Your task to perform on an android device: change notifications settings Image 0: 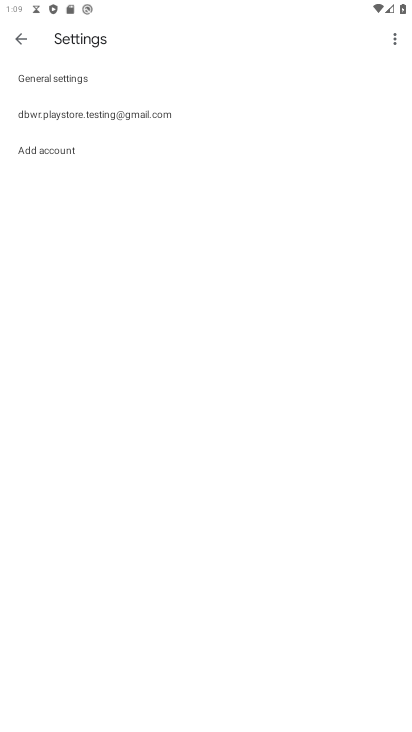
Step 0: press home button
Your task to perform on an android device: change notifications settings Image 1: 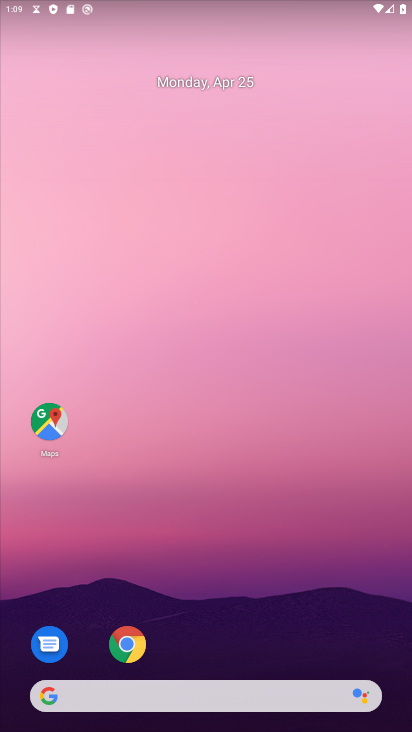
Step 1: drag from (355, 664) to (360, 0)
Your task to perform on an android device: change notifications settings Image 2: 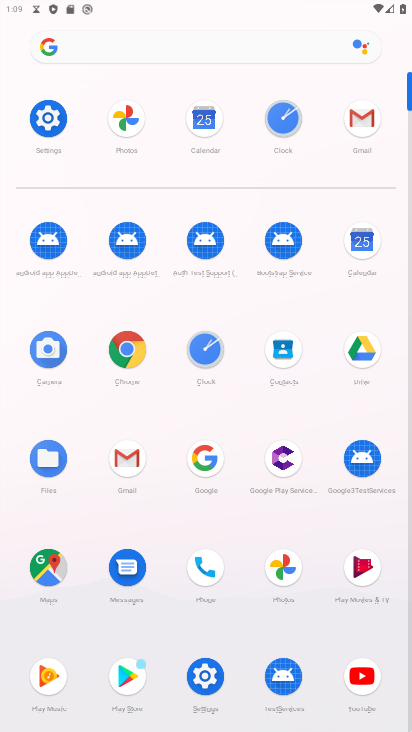
Step 2: click (47, 123)
Your task to perform on an android device: change notifications settings Image 3: 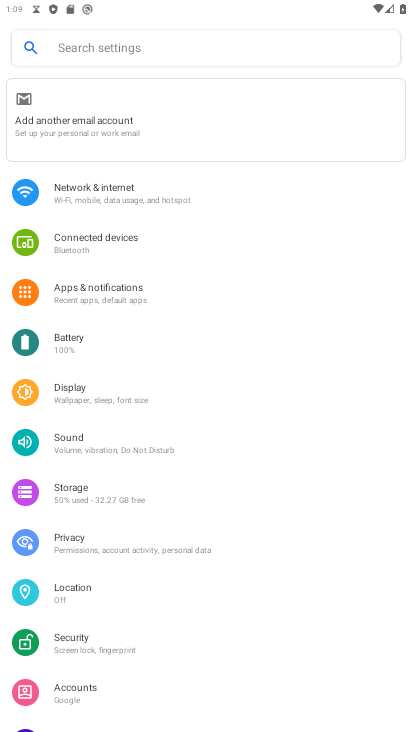
Step 3: click (105, 293)
Your task to perform on an android device: change notifications settings Image 4: 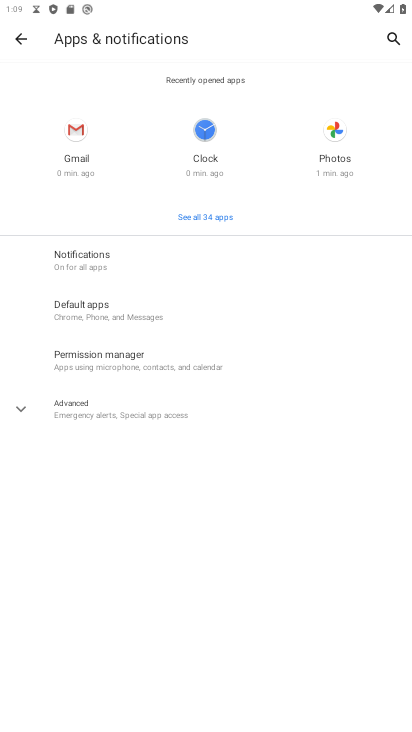
Step 4: click (77, 267)
Your task to perform on an android device: change notifications settings Image 5: 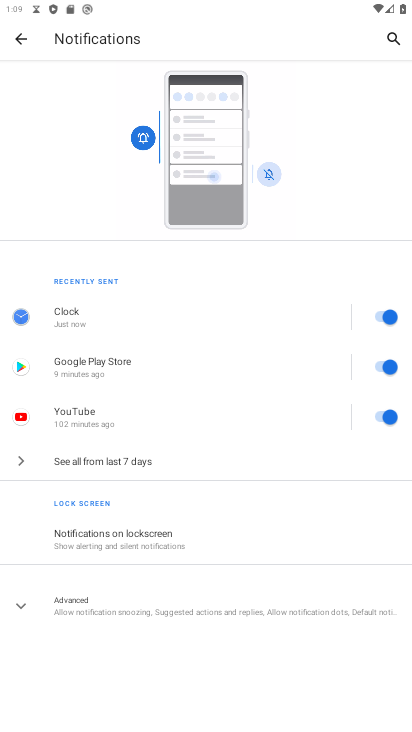
Step 5: click (80, 463)
Your task to perform on an android device: change notifications settings Image 6: 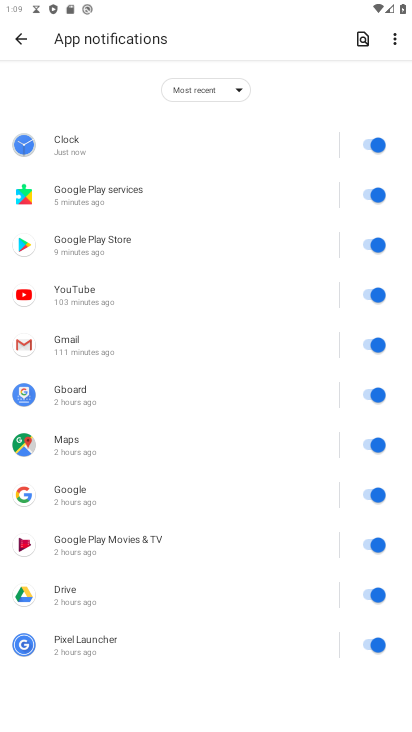
Step 6: click (240, 92)
Your task to perform on an android device: change notifications settings Image 7: 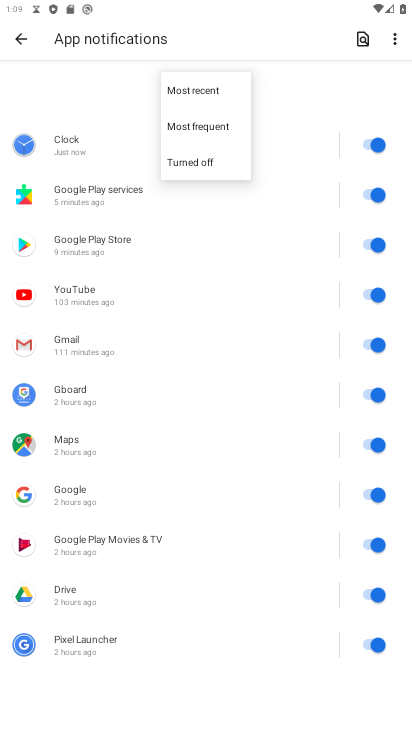
Step 7: click (215, 122)
Your task to perform on an android device: change notifications settings Image 8: 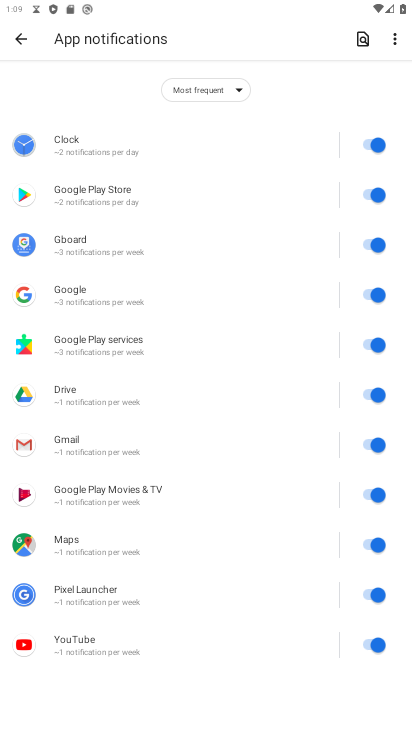
Step 8: task complete